Your task to perform on an android device: Search for Mexican restaurants on Maps Image 0: 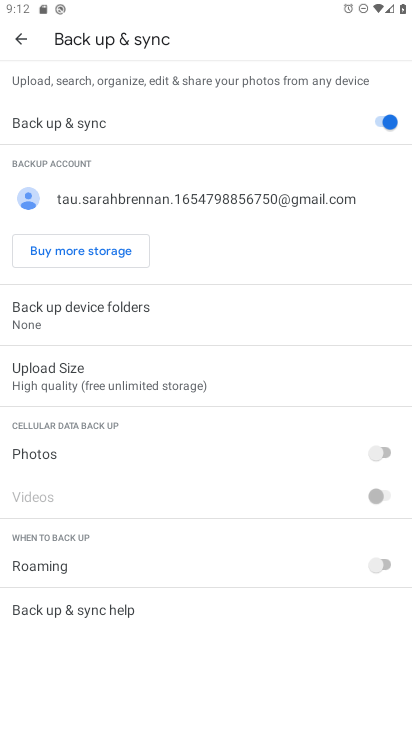
Step 0: press home button
Your task to perform on an android device: Search for Mexican restaurants on Maps Image 1: 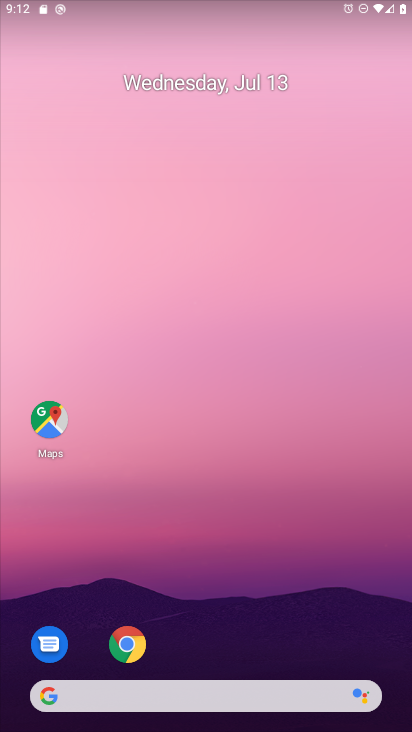
Step 1: click (51, 412)
Your task to perform on an android device: Search for Mexican restaurants on Maps Image 2: 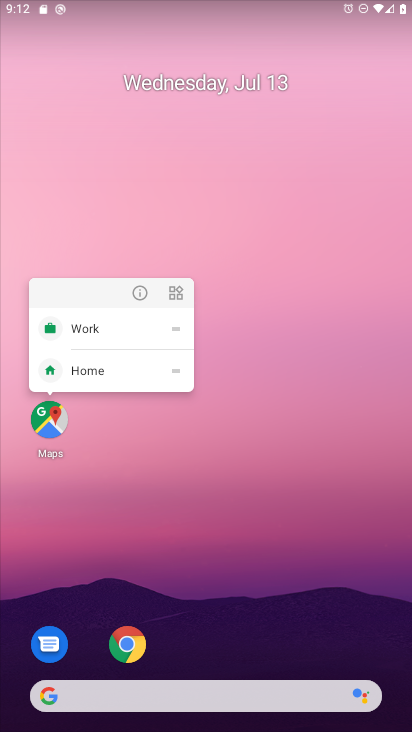
Step 2: click (63, 408)
Your task to perform on an android device: Search for Mexican restaurants on Maps Image 3: 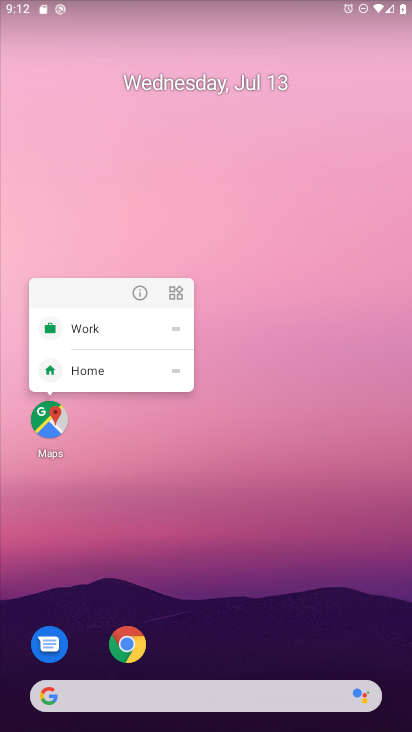
Step 3: click (49, 420)
Your task to perform on an android device: Search for Mexican restaurants on Maps Image 4: 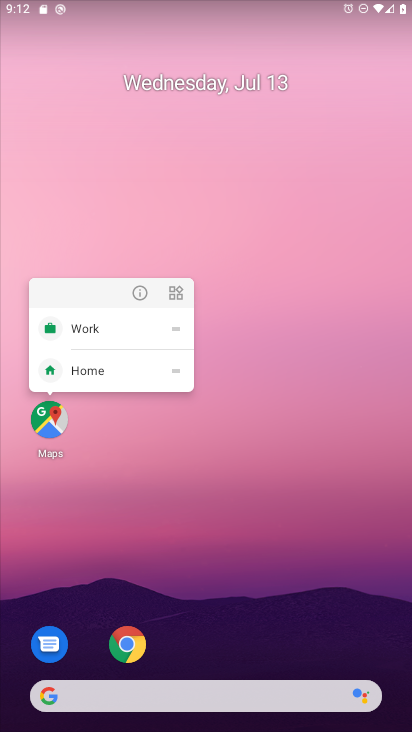
Step 4: click (46, 416)
Your task to perform on an android device: Search for Mexican restaurants on Maps Image 5: 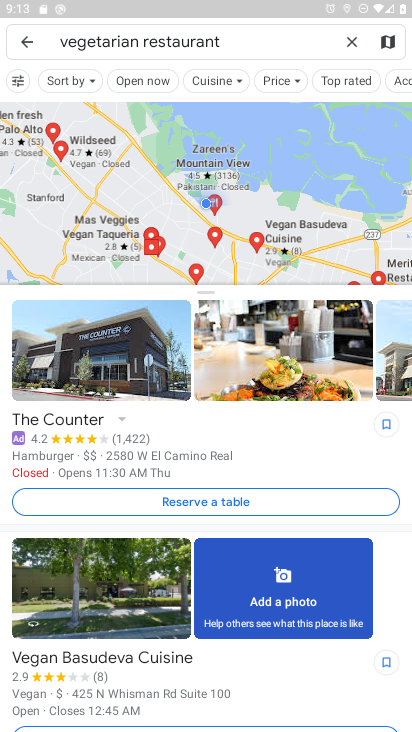
Step 5: click (351, 39)
Your task to perform on an android device: Search for Mexican restaurants on Maps Image 6: 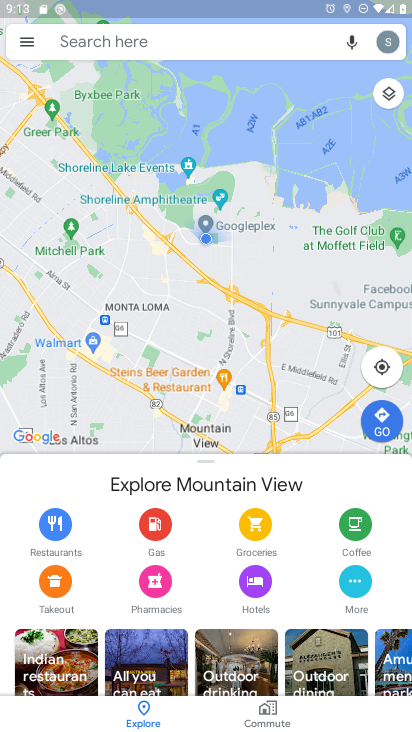
Step 6: type "Mexican restaurants "
Your task to perform on an android device: Search for Mexican restaurants on Maps Image 7: 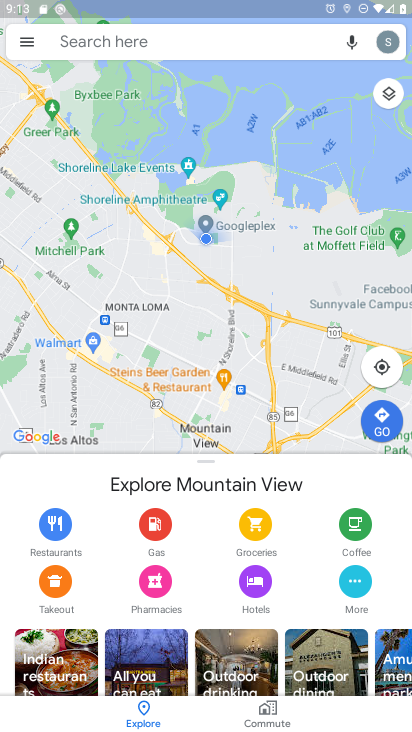
Step 7: click (111, 47)
Your task to perform on an android device: Search for Mexican restaurants on Maps Image 8: 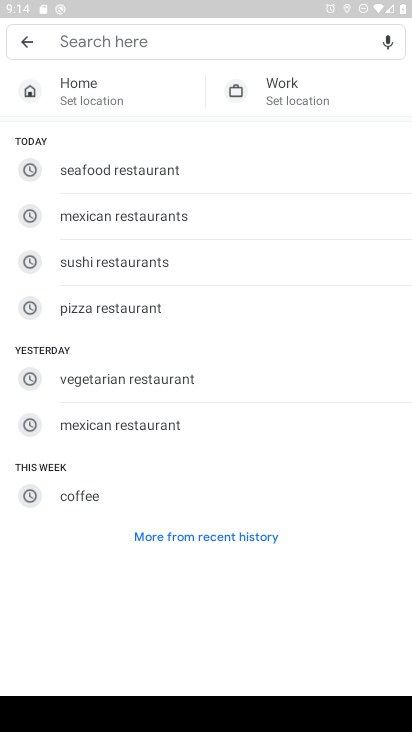
Step 8: click (126, 208)
Your task to perform on an android device: Search for Mexican restaurants on Maps Image 9: 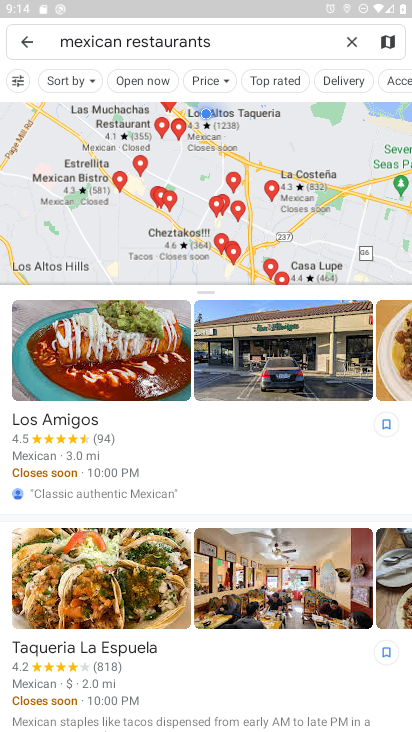
Step 9: task complete